Your task to perform on an android device: Open location settings Image 0: 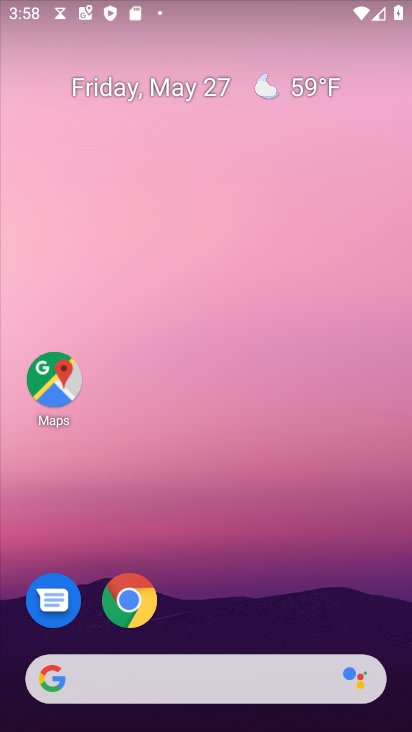
Step 0: drag from (278, 587) to (263, 23)
Your task to perform on an android device: Open location settings Image 1: 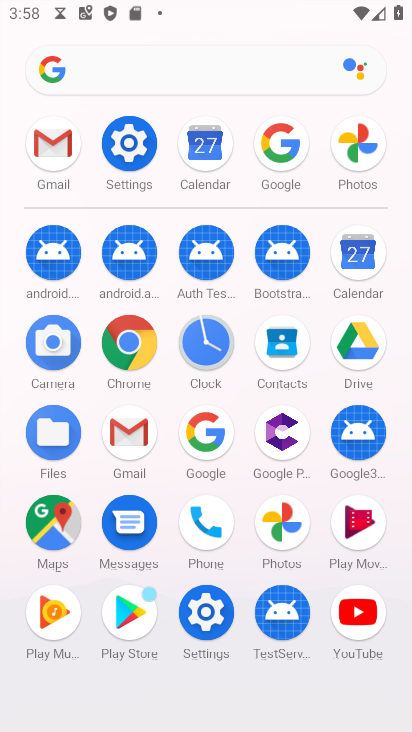
Step 1: click (130, 142)
Your task to perform on an android device: Open location settings Image 2: 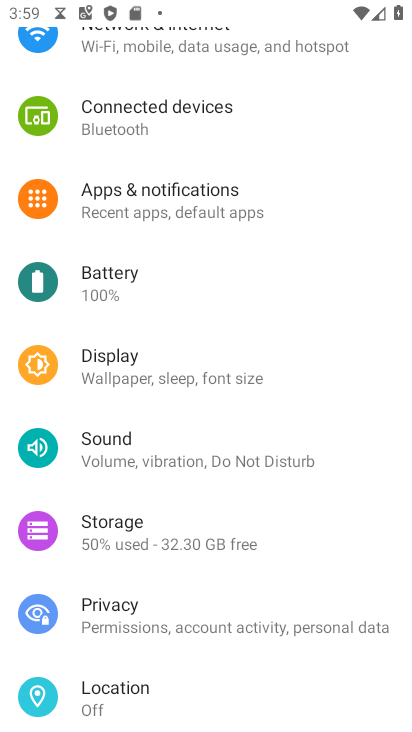
Step 2: drag from (254, 558) to (309, 447)
Your task to perform on an android device: Open location settings Image 3: 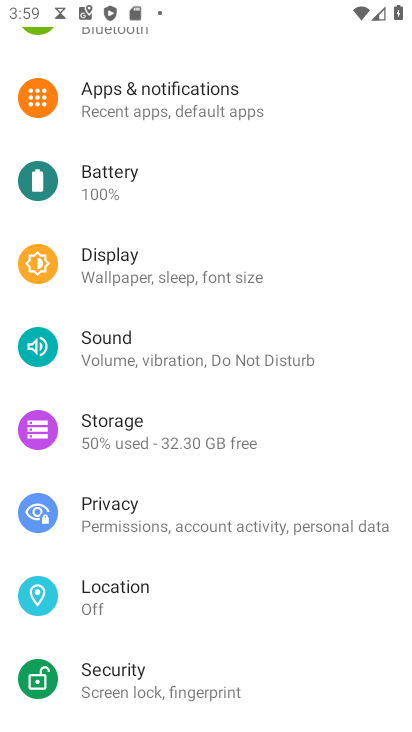
Step 3: click (120, 591)
Your task to perform on an android device: Open location settings Image 4: 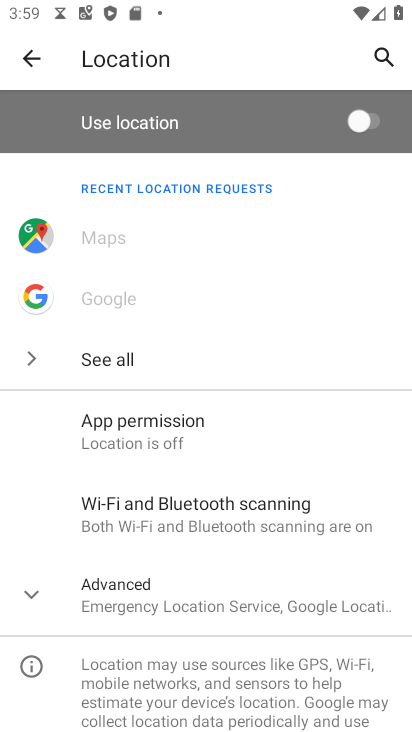
Step 4: task complete